Your task to perform on an android device: empty trash in the gmail app Image 0: 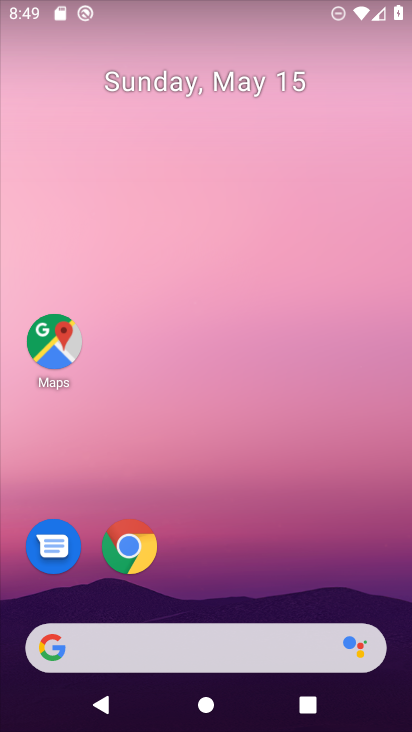
Step 0: drag from (308, 243) to (293, 64)
Your task to perform on an android device: empty trash in the gmail app Image 1: 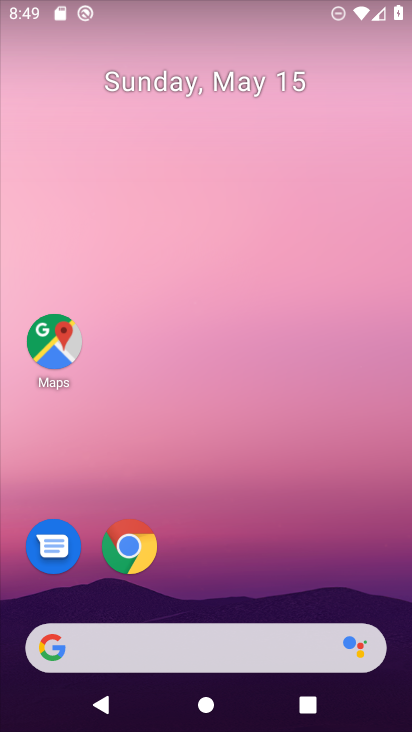
Step 1: drag from (222, 494) to (229, 17)
Your task to perform on an android device: empty trash in the gmail app Image 2: 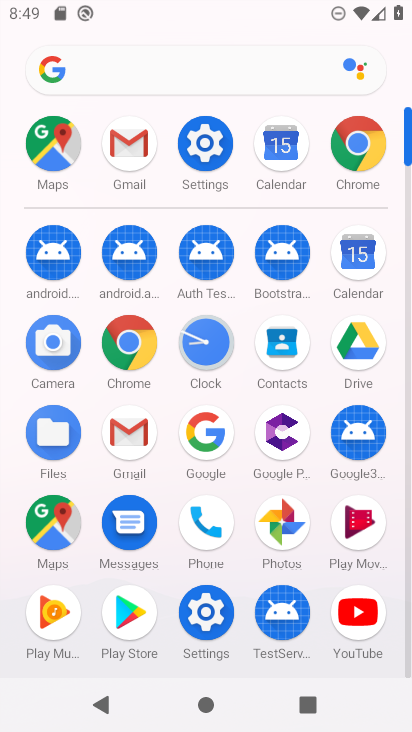
Step 2: click (123, 126)
Your task to perform on an android device: empty trash in the gmail app Image 3: 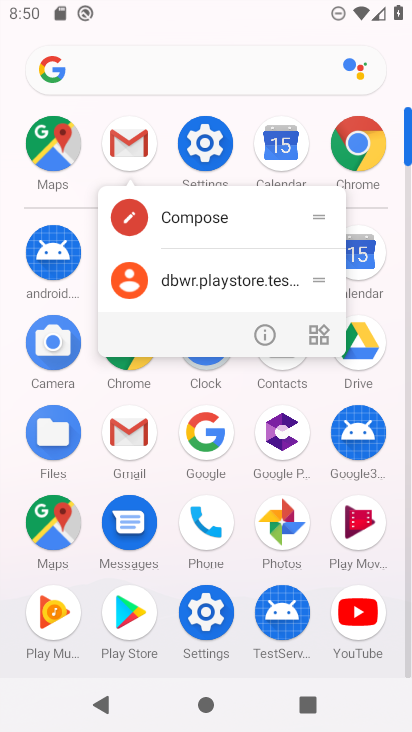
Step 3: click (123, 126)
Your task to perform on an android device: empty trash in the gmail app Image 4: 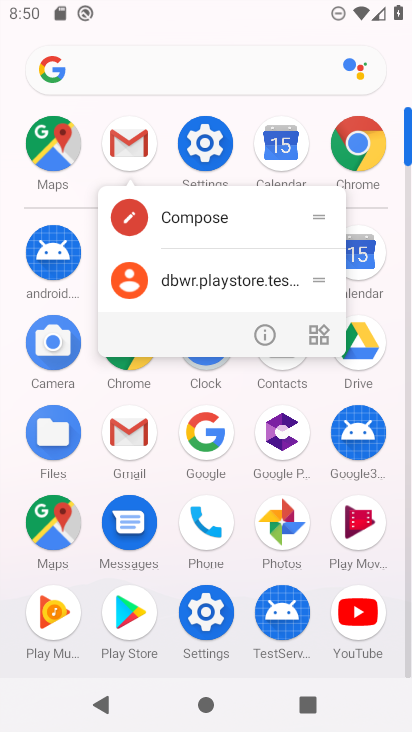
Step 4: click (128, 141)
Your task to perform on an android device: empty trash in the gmail app Image 5: 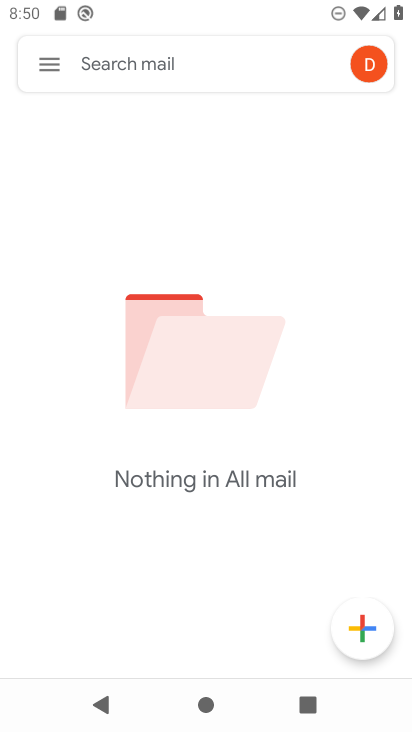
Step 5: click (57, 63)
Your task to perform on an android device: empty trash in the gmail app Image 6: 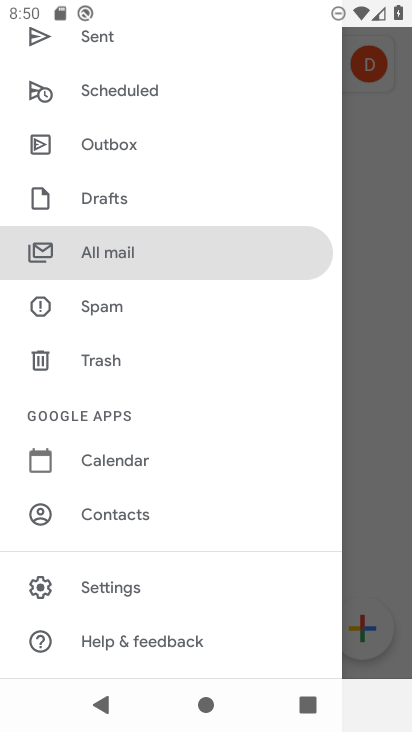
Step 6: click (169, 365)
Your task to perform on an android device: empty trash in the gmail app Image 7: 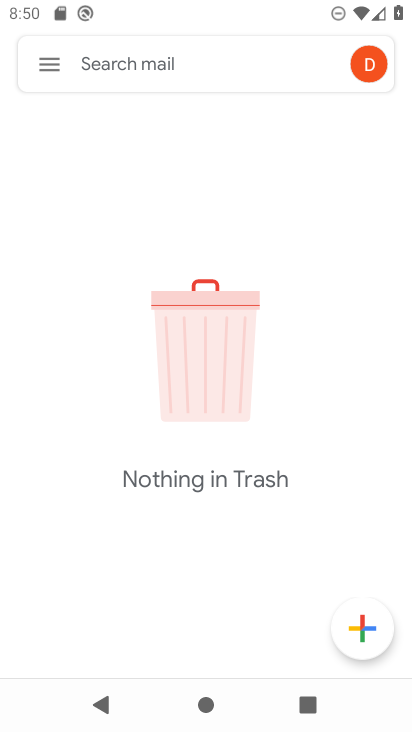
Step 7: task complete